Your task to perform on an android device: allow cookies in the chrome app Image 0: 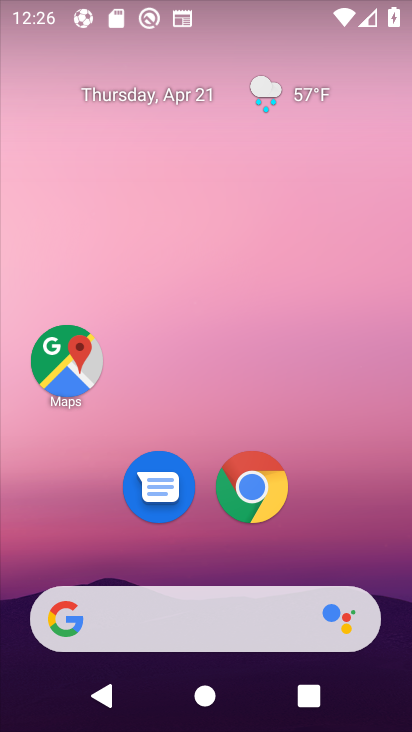
Step 0: drag from (363, 342) to (361, 154)
Your task to perform on an android device: allow cookies in the chrome app Image 1: 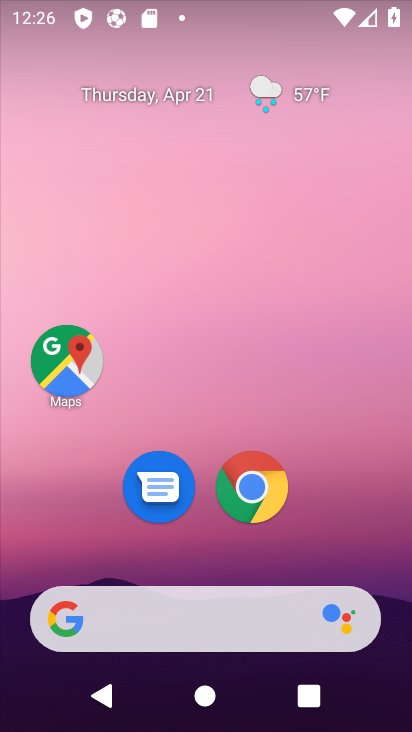
Step 1: drag from (362, 514) to (364, 98)
Your task to perform on an android device: allow cookies in the chrome app Image 2: 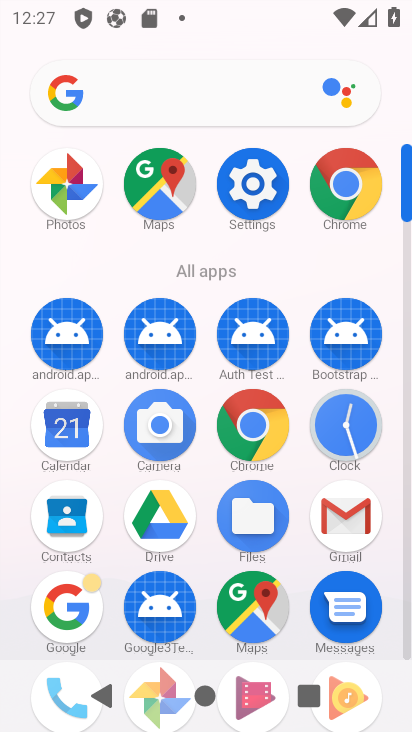
Step 2: click (340, 196)
Your task to perform on an android device: allow cookies in the chrome app Image 3: 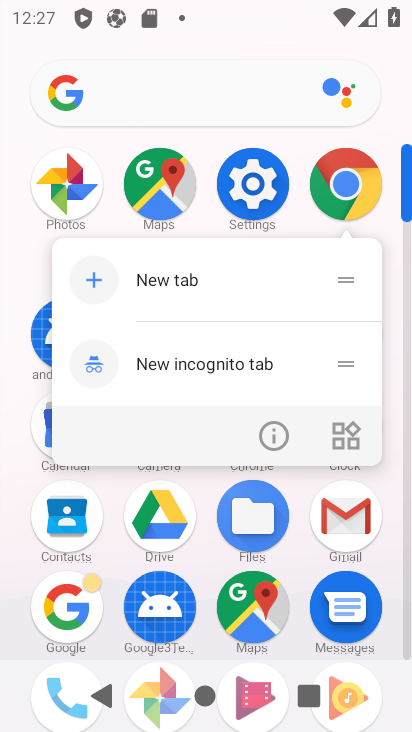
Step 3: click (364, 209)
Your task to perform on an android device: allow cookies in the chrome app Image 4: 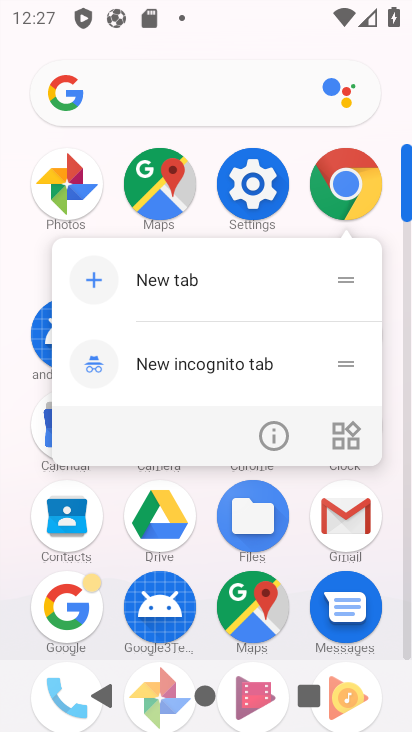
Step 4: click (361, 193)
Your task to perform on an android device: allow cookies in the chrome app Image 5: 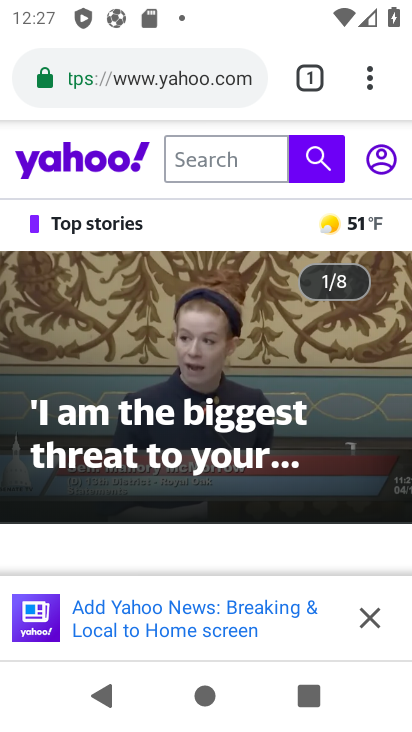
Step 5: click (369, 75)
Your task to perform on an android device: allow cookies in the chrome app Image 6: 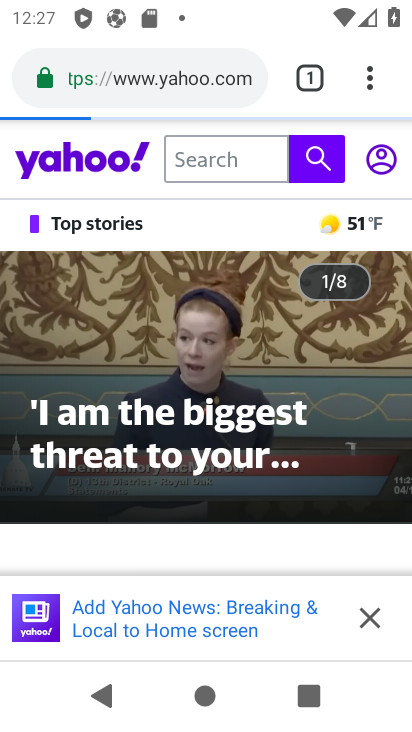
Step 6: drag from (370, 76) to (127, 542)
Your task to perform on an android device: allow cookies in the chrome app Image 7: 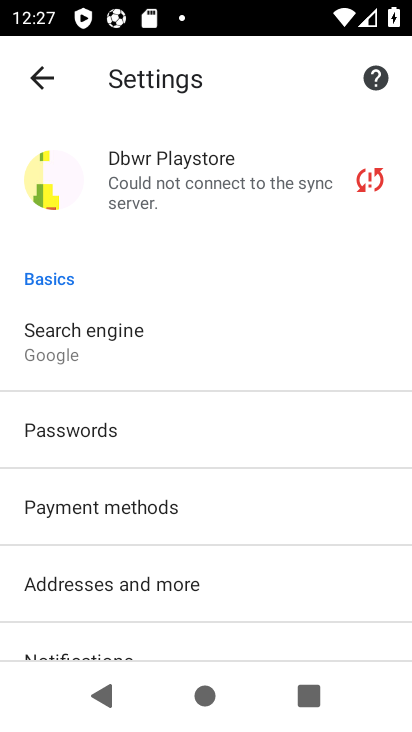
Step 7: drag from (234, 598) to (232, 341)
Your task to perform on an android device: allow cookies in the chrome app Image 8: 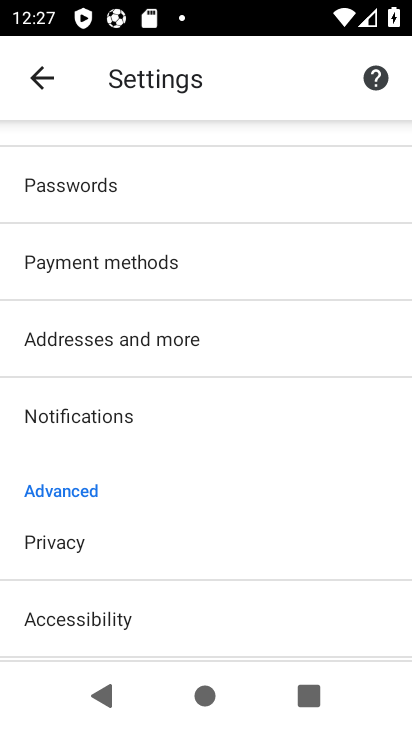
Step 8: drag from (242, 568) to (263, 318)
Your task to perform on an android device: allow cookies in the chrome app Image 9: 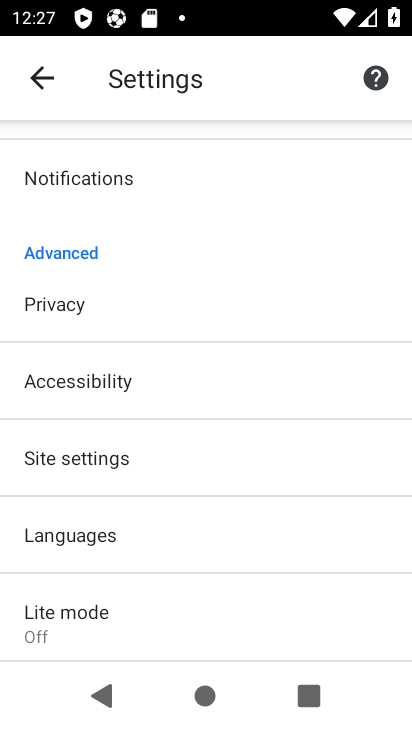
Step 9: click (134, 458)
Your task to perform on an android device: allow cookies in the chrome app Image 10: 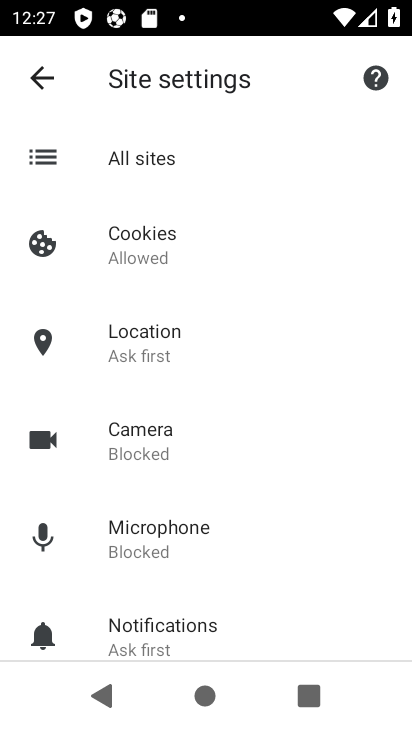
Step 10: click (183, 237)
Your task to perform on an android device: allow cookies in the chrome app Image 11: 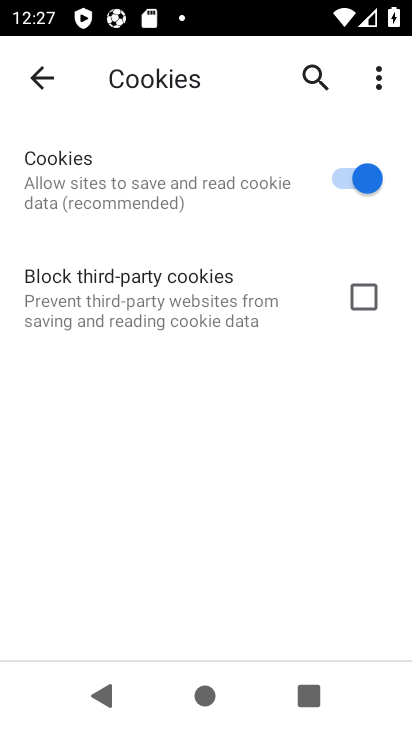
Step 11: task complete